Your task to perform on an android device: Empty the shopping cart on amazon.com. Search for asus zenbook on amazon.com, select the first entry, and add it to the cart. Image 0: 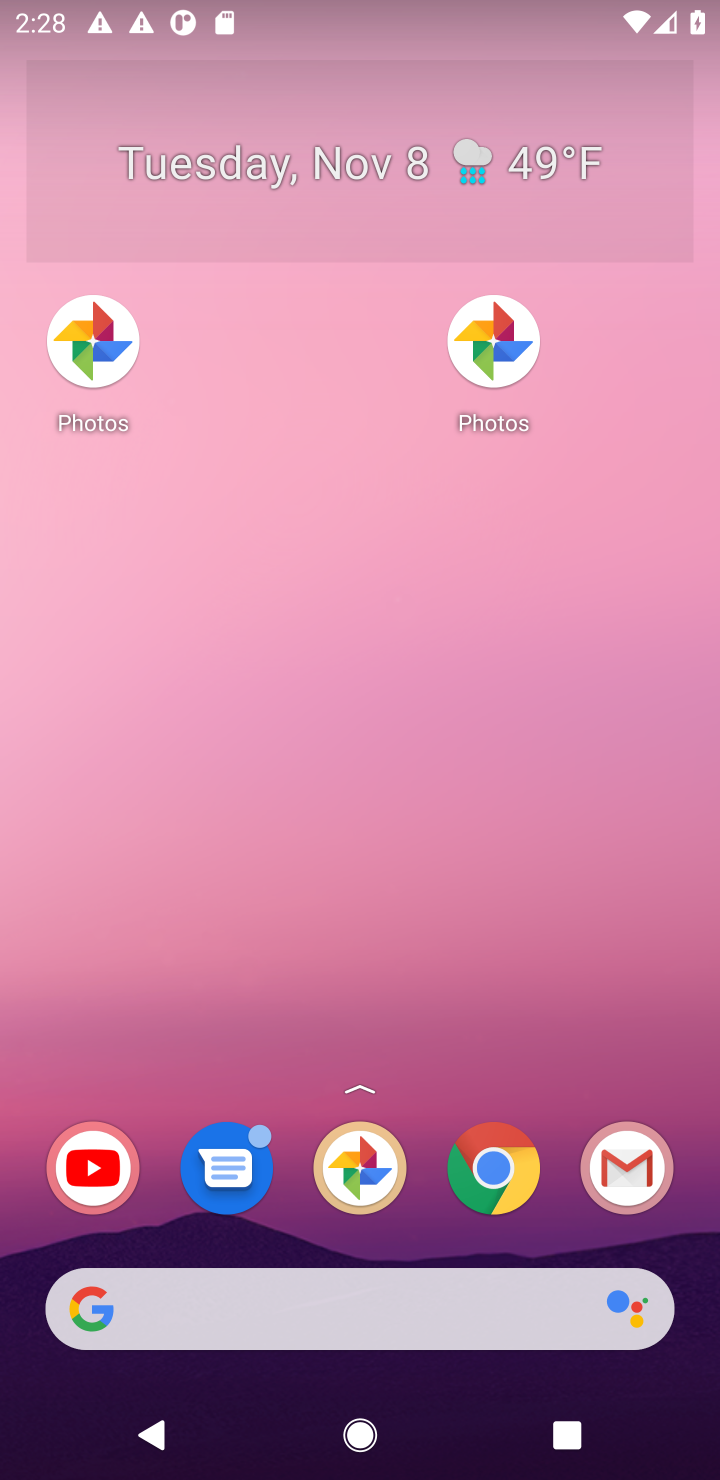
Step 0: drag from (312, 1171) to (404, 354)
Your task to perform on an android device: Empty the shopping cart on amazon.com. Search for asus zenbook on amazon.com, select the first entry, and add it to the cart. Image 1: 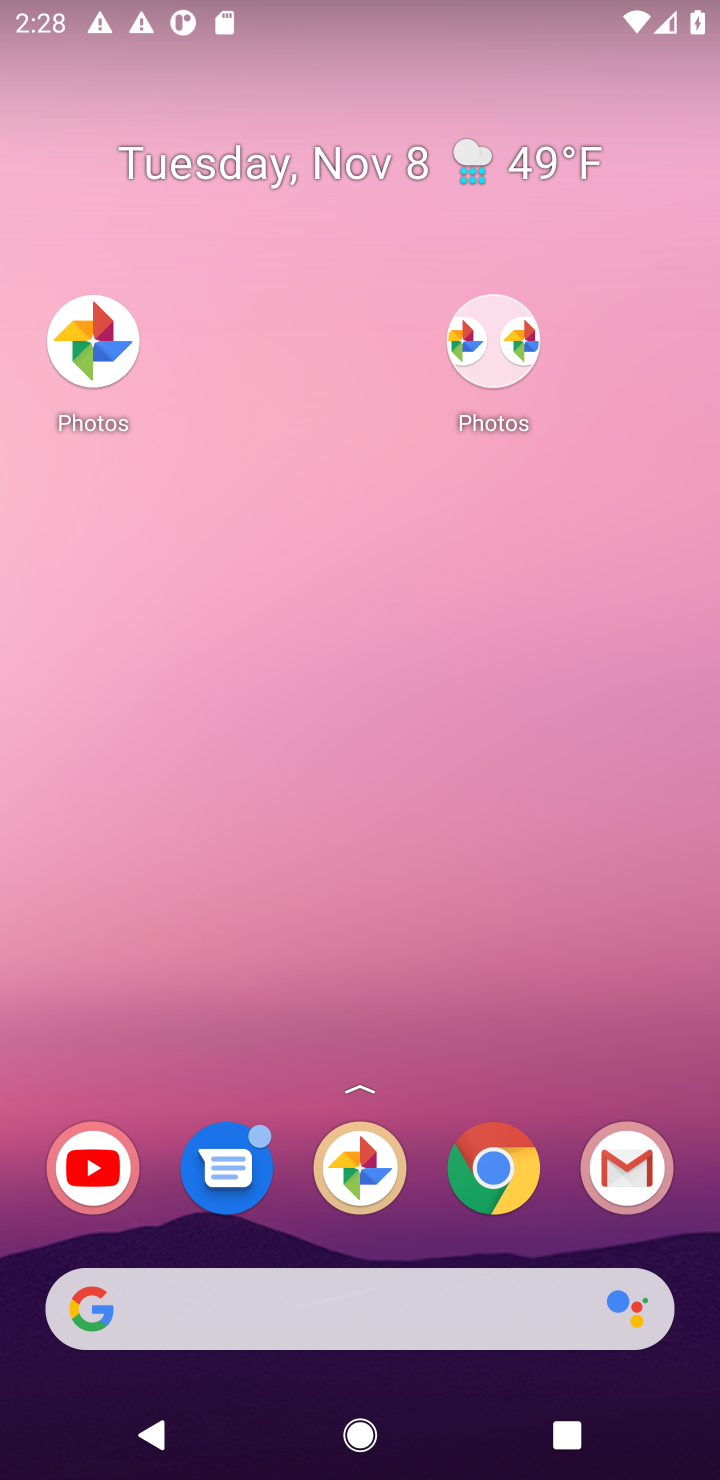
Step 1: drag from (38, 1252) to (244, 438)
Your task to perform on an android device: Empty the shopping cart on amazon.com. Search for asus zenbook on amazon.com, select the first entry, and add it to the cart. Image 2: 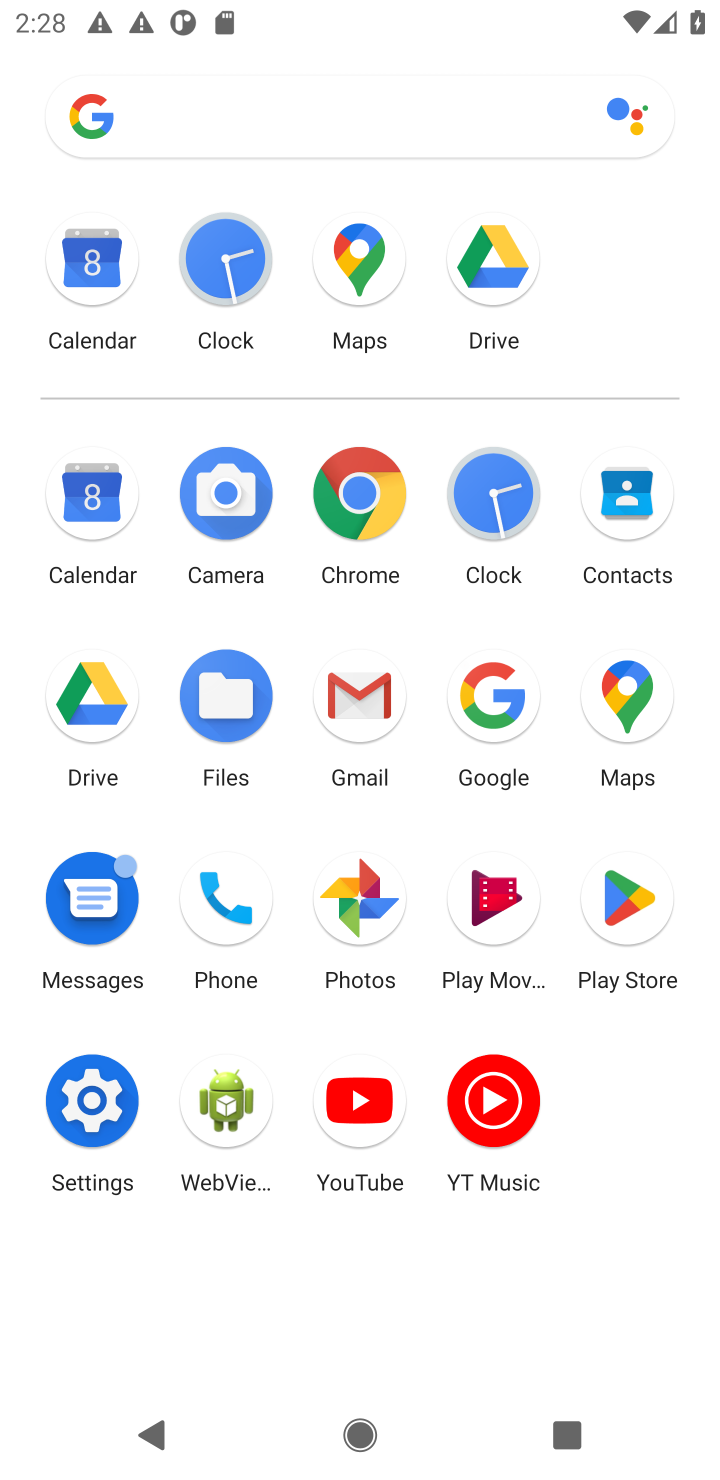
Step 2: click (381, 508)
Your task to perform on an android device: Empty the shopping cart on amazon.com. Search for asus zenbook on amazon.com, select the first entry, and add it to the cart. Image 3: 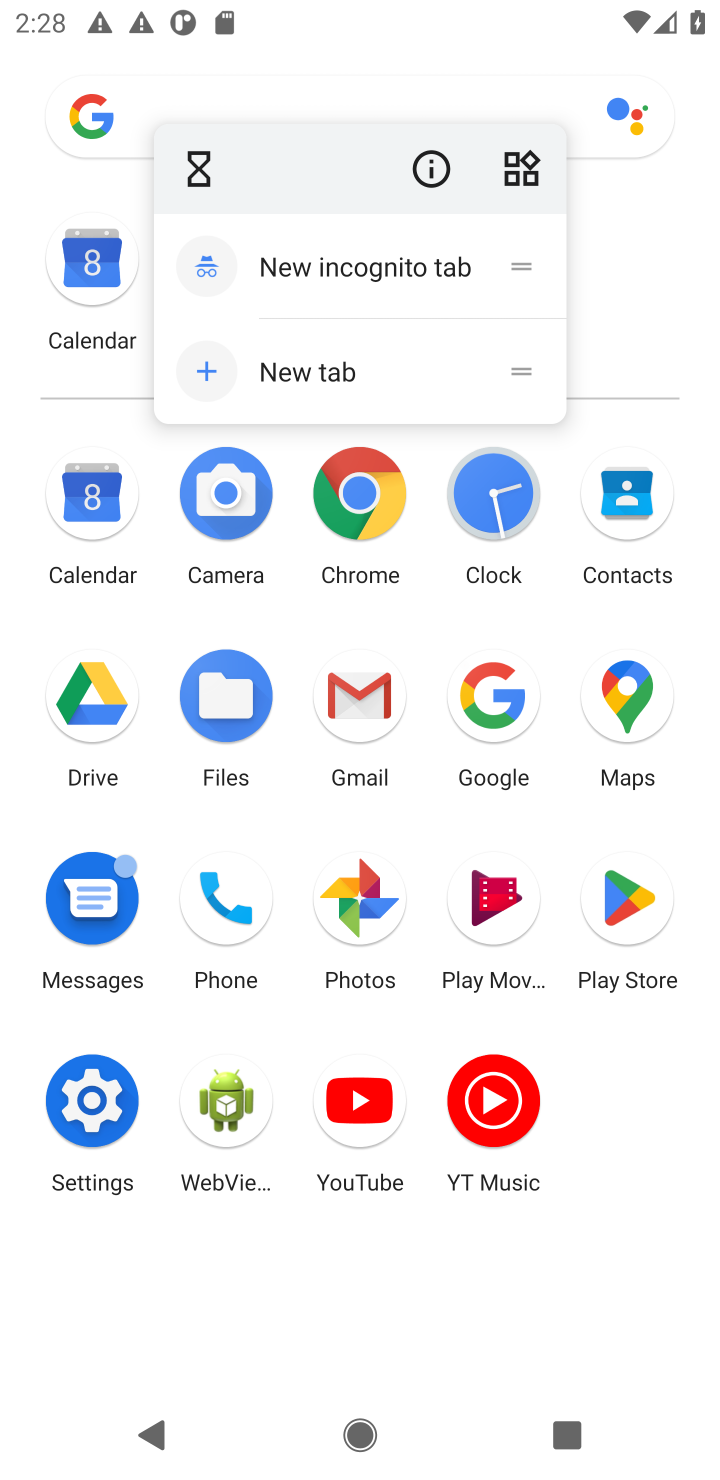
Step 3: click (381, 513)
Your task to perform on an android device: Empty the shopping cart on amazon.com. Search for asus zenbook on amazon.com, select the first entry, and add it to the cart. Image 4: 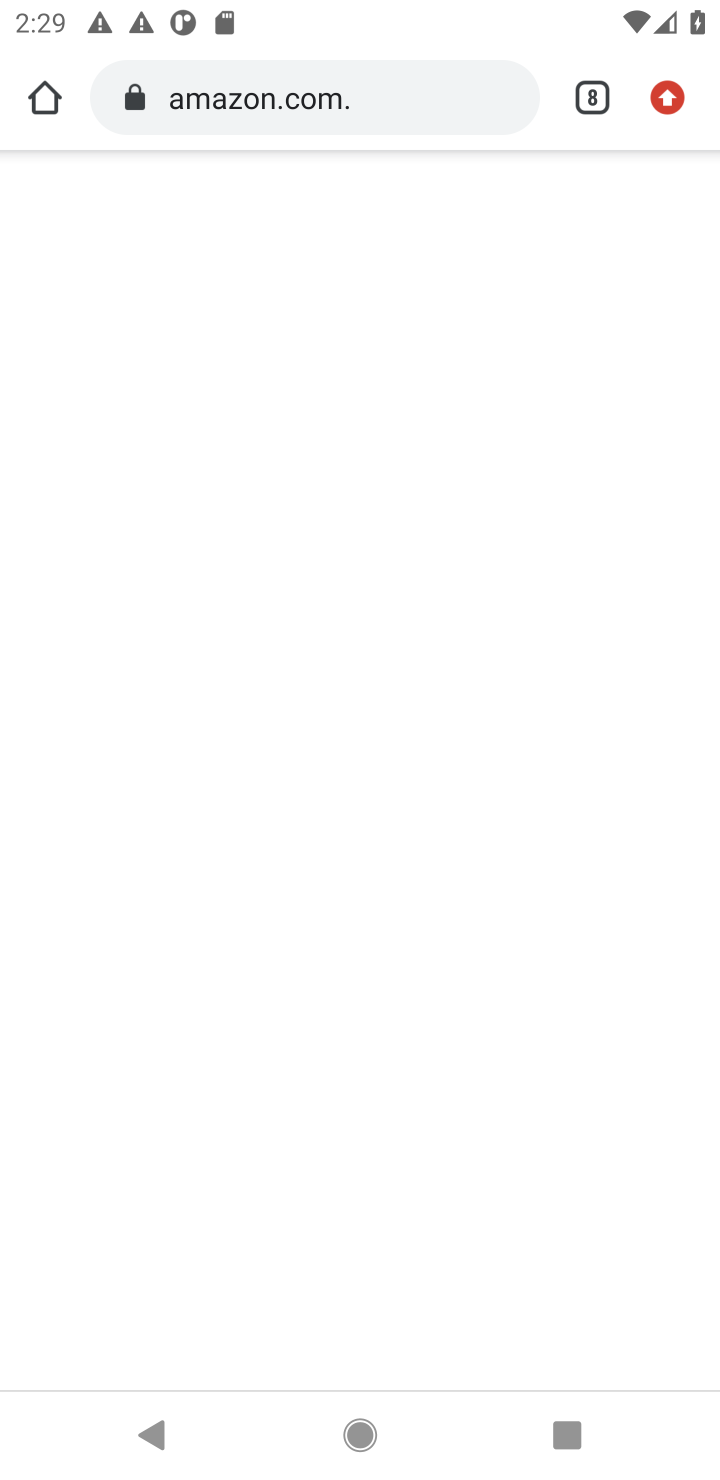
Step 4: click (412, 89)
Your task to perform on an android device: Empty the shopping cart on amazon.com. Search for asus zenbook on amazon.com, select the first entry, and add it to the cart. Image 5: 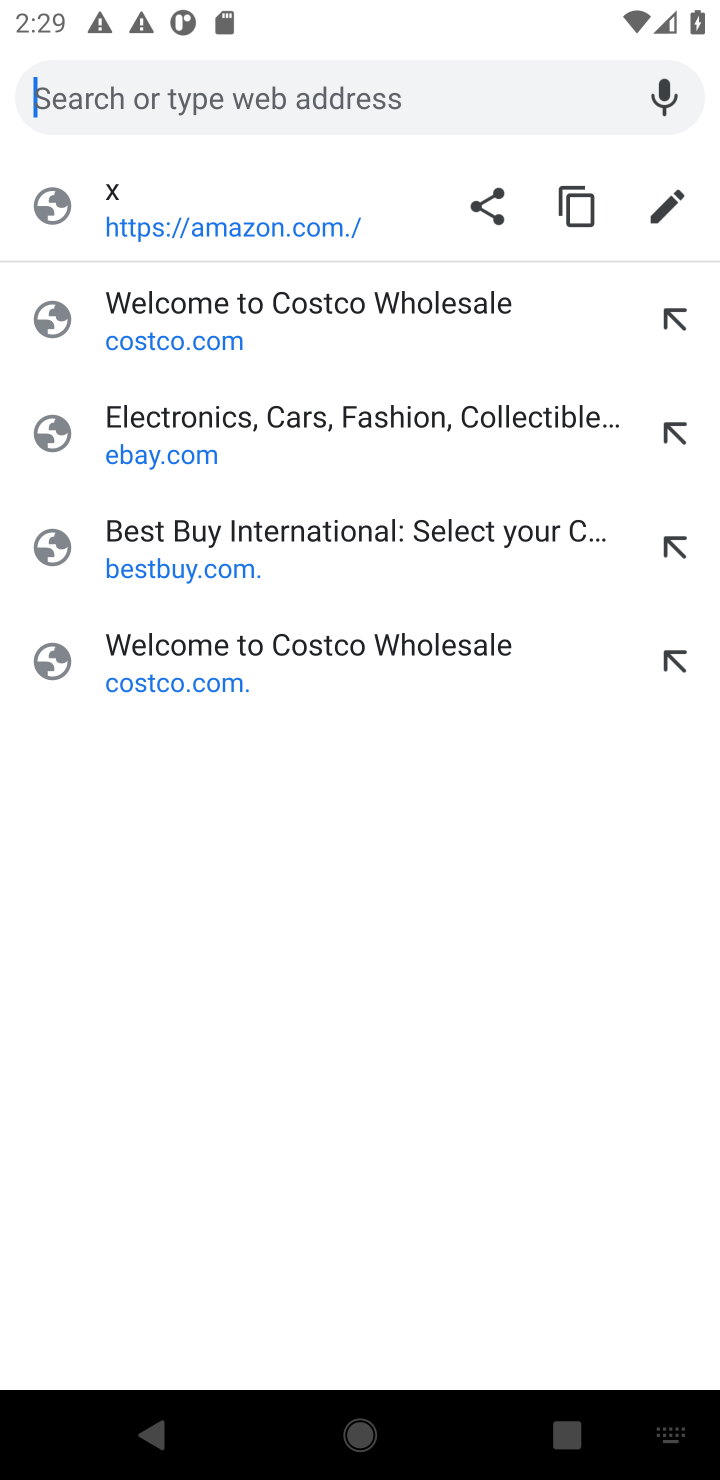
Step 5: type "amazon.com"
Your task to perform on an android device: Empty the shopping cart on amazon.com. Search for asus zenbook on amazon.com, select the first entry, and add it to the cart. Image 6: 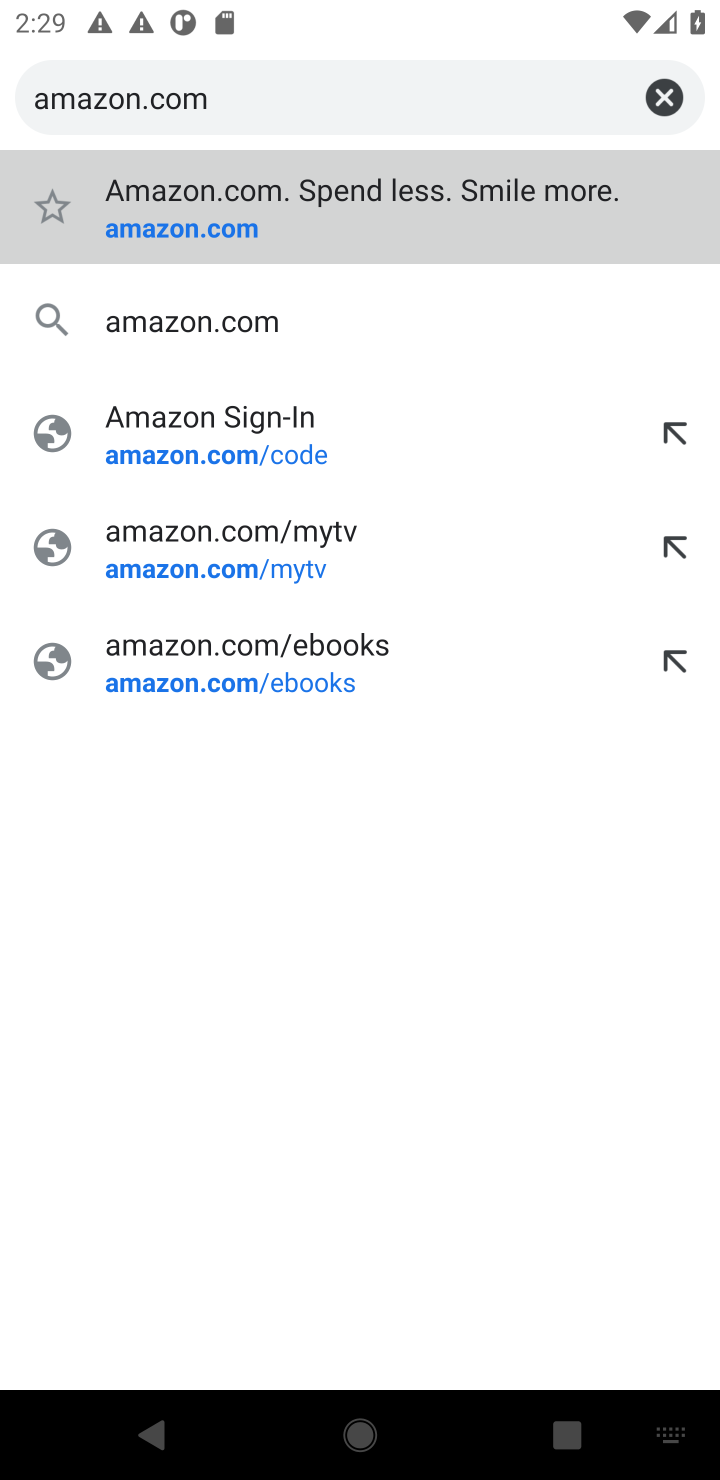
Step 6: press enter
Your task to perform on an android device: Empty the shopping cart on amazon.com. Search for asus zenbook on amazon.com, select the first entry, and add it to the cart. Image 7: 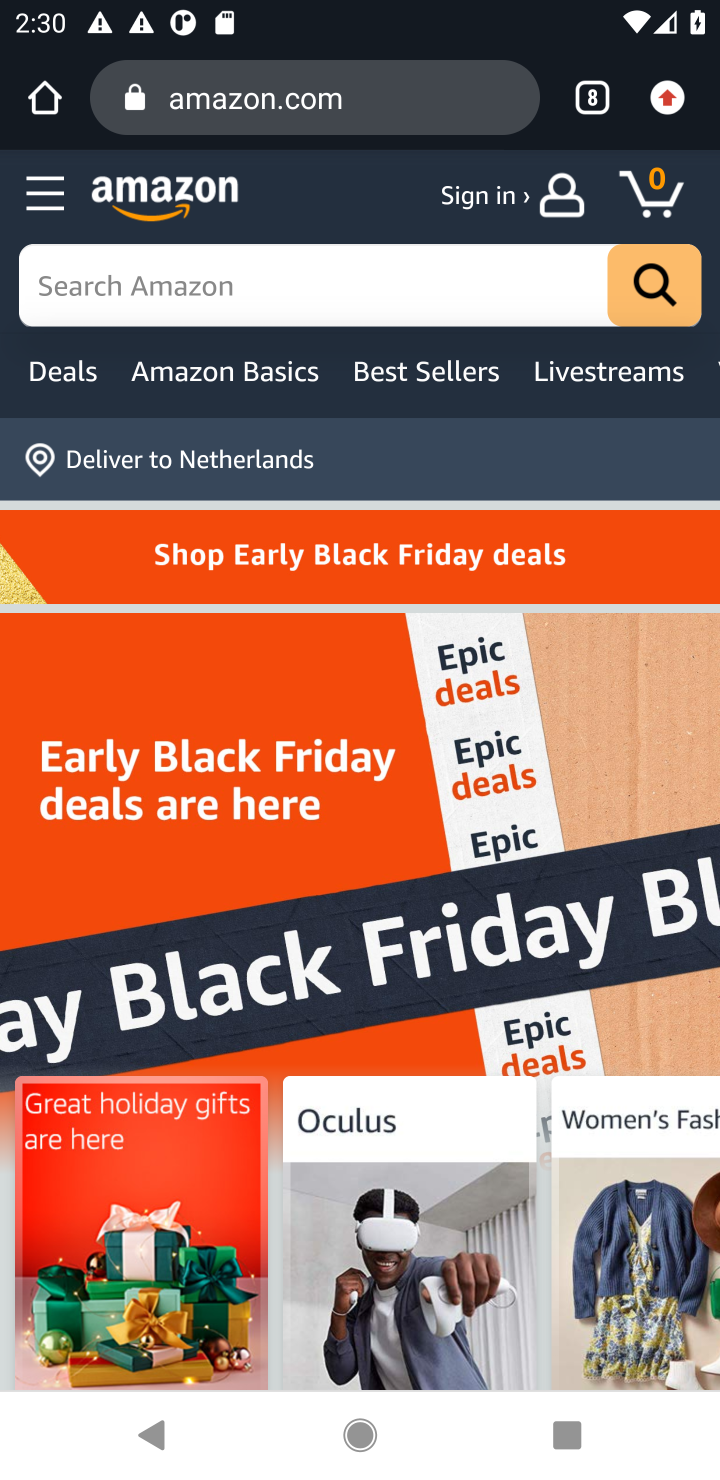
Step 7: click (289, 273)
Your task to perform on an android device: Empty the shopping cart on amazon.com. Search for asus zenbook on amazon.com, select the first entry, and add it to the cart. Image 8: 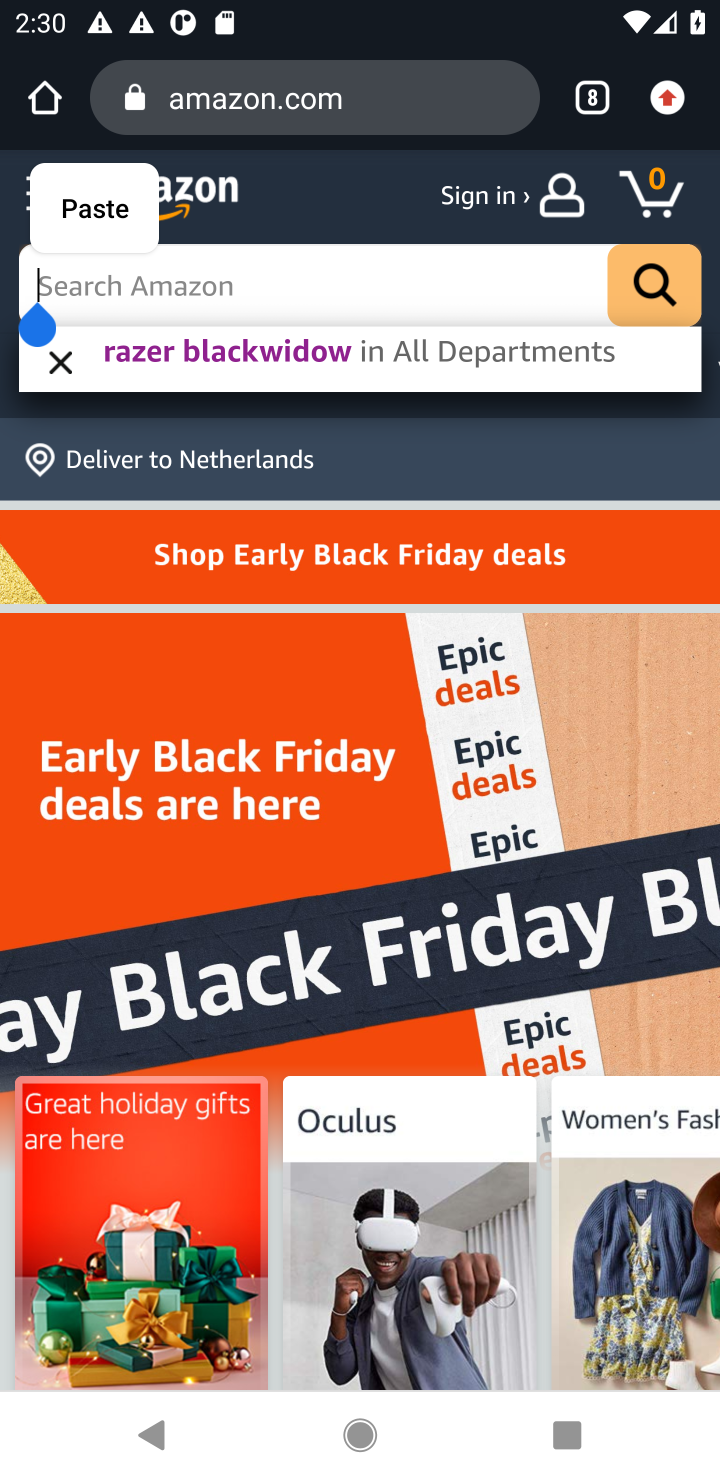
Step 8: type "asus zenbook "
Your task to perform on an android device: Empty the shopping cart on amazon.com. Search for asus zenbook on amazon.com, select the first entry, and add it to the cart. Image 9: 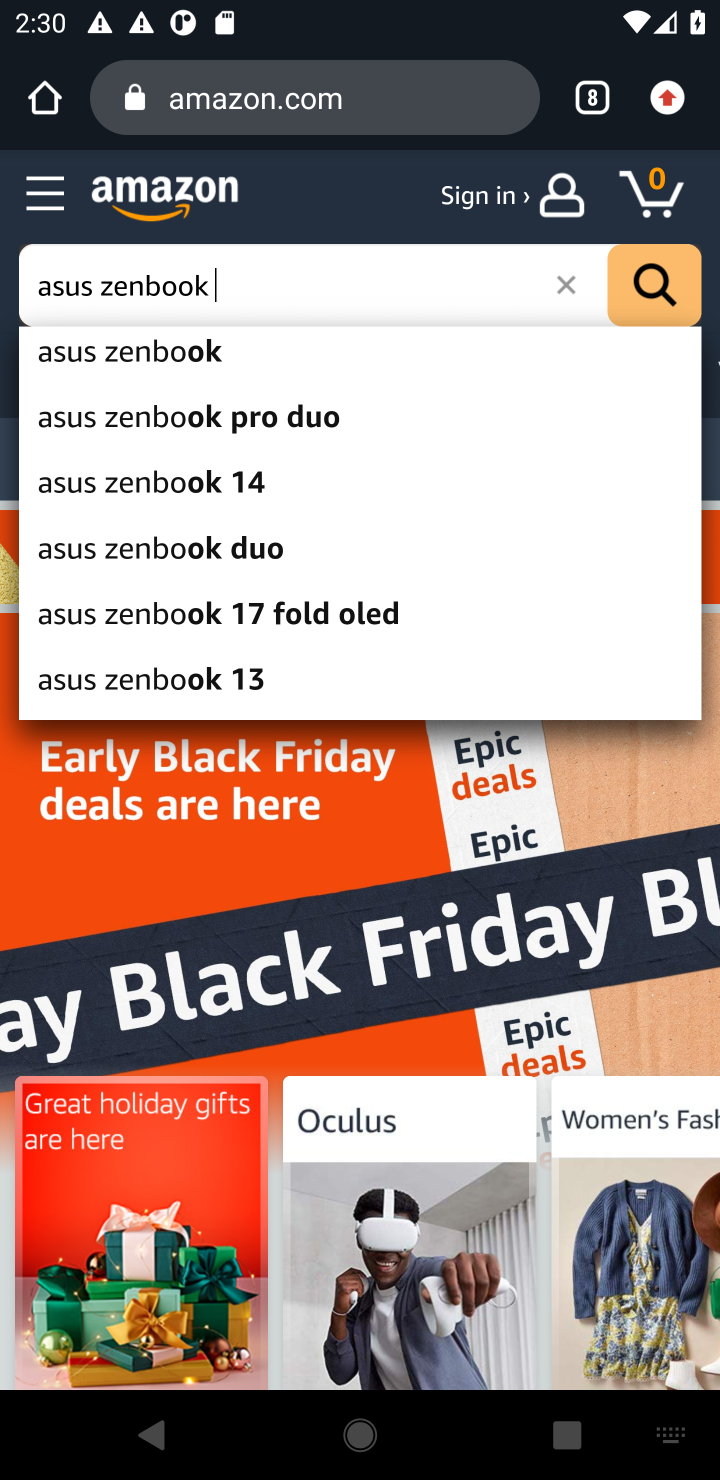
Step 9: press enter
Your task to perform on an android device: Empty the shopping cart on amazon.com. Search for asus zenbook on amazon.com, select the first entry, and add it to the cart. Image 10: 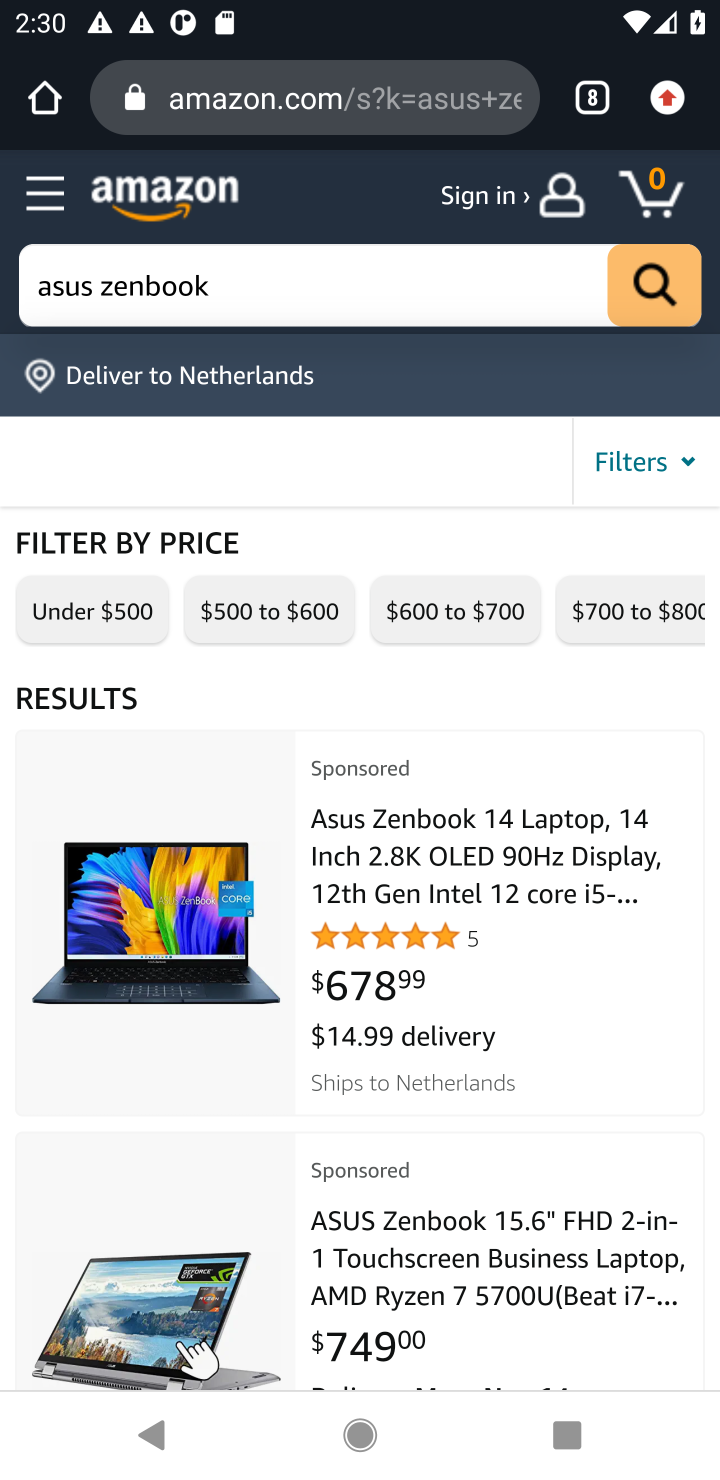
Step 10: click (433, 823)
Your task to perform on an android device: Empty the shopping cart on amazon.com. Search for asus zenbook on amazon.com, select the first entry, and add it to the cart. Image 11: 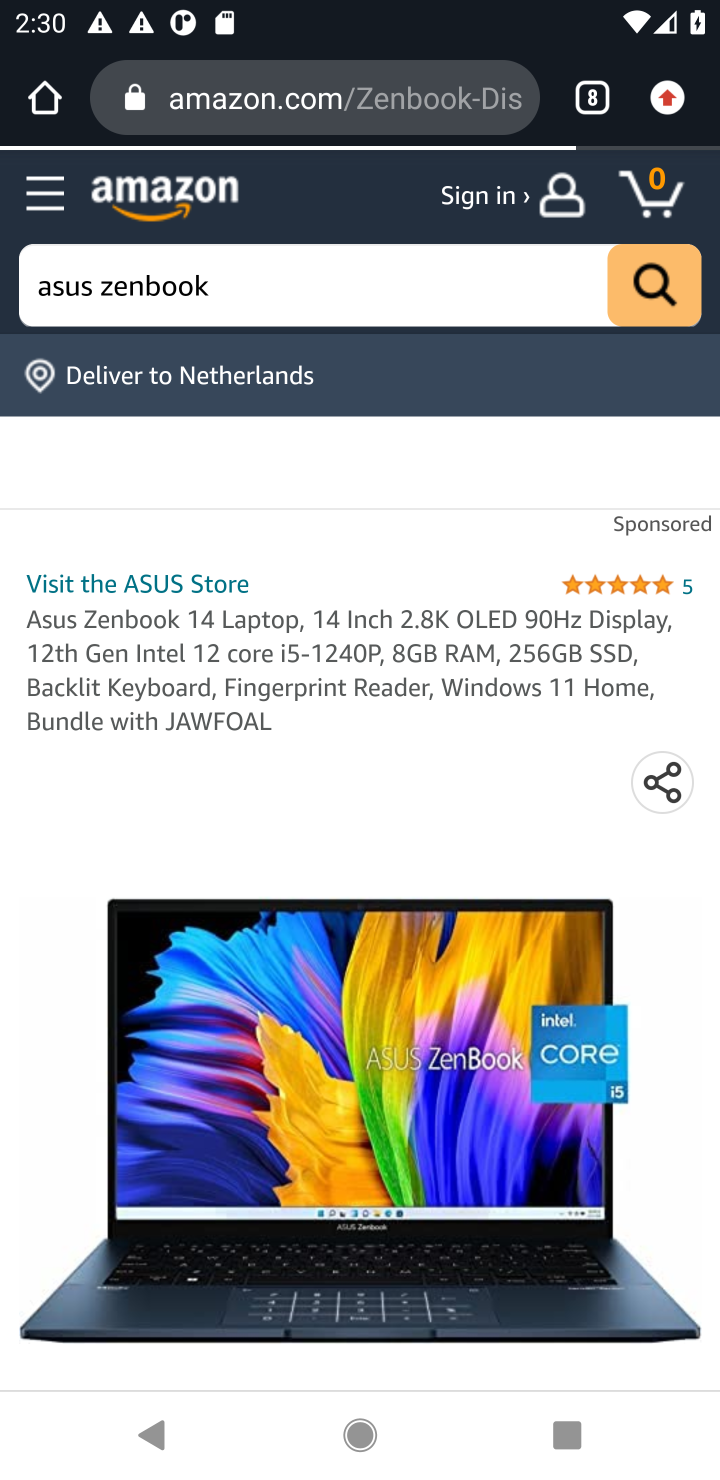
Step 11: drag from (255, 1191) to (378, 907)
Your task to perform on an android device: Empty the shopping cart on amazon.com. Search for asus zenbook on amazon.com, select the first entry, and add it to the cart. Image 12: 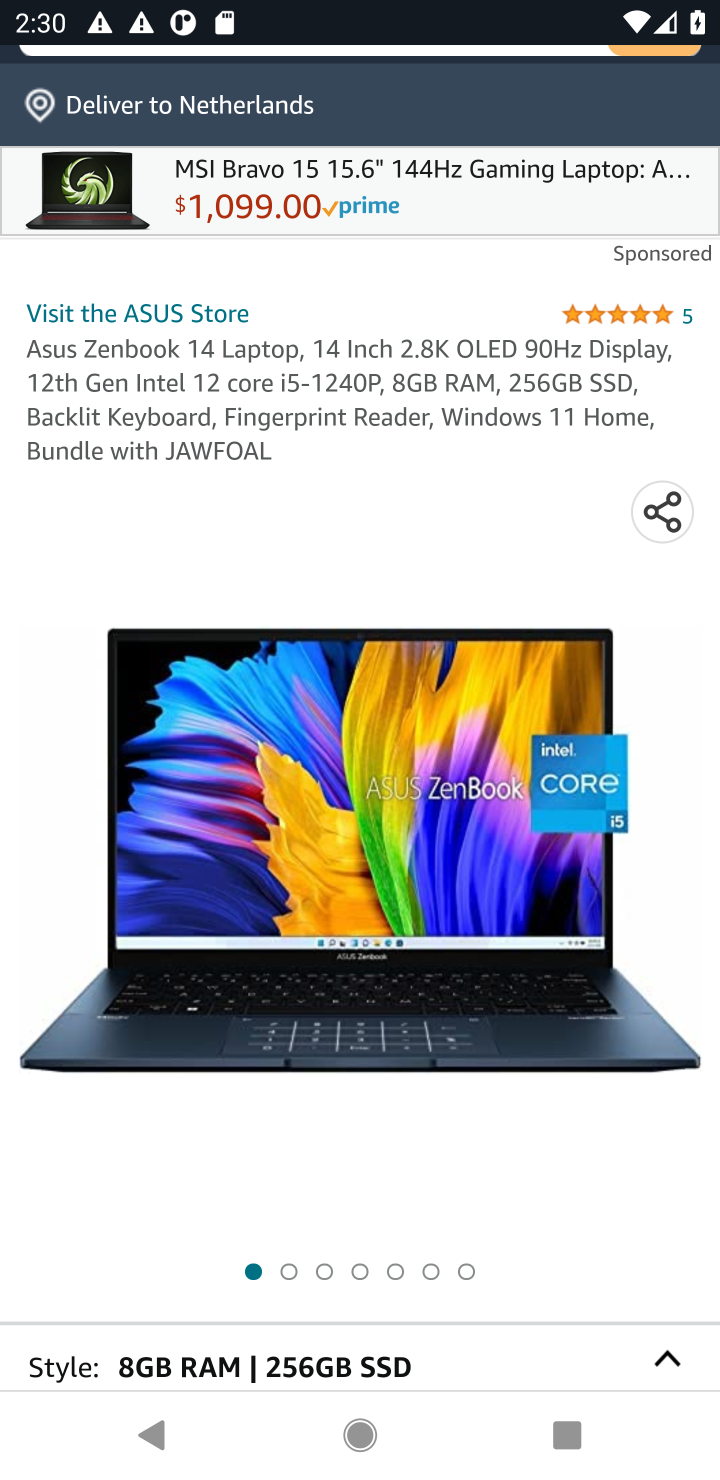
Step 12: drag from (280, 1178) to (446, 814)
Your task to perform on an android device: Empty the shopping cart on amazon.com. Search for asus zenbook on amazon.com, select the first entry, and add it to the cart. Image 13: 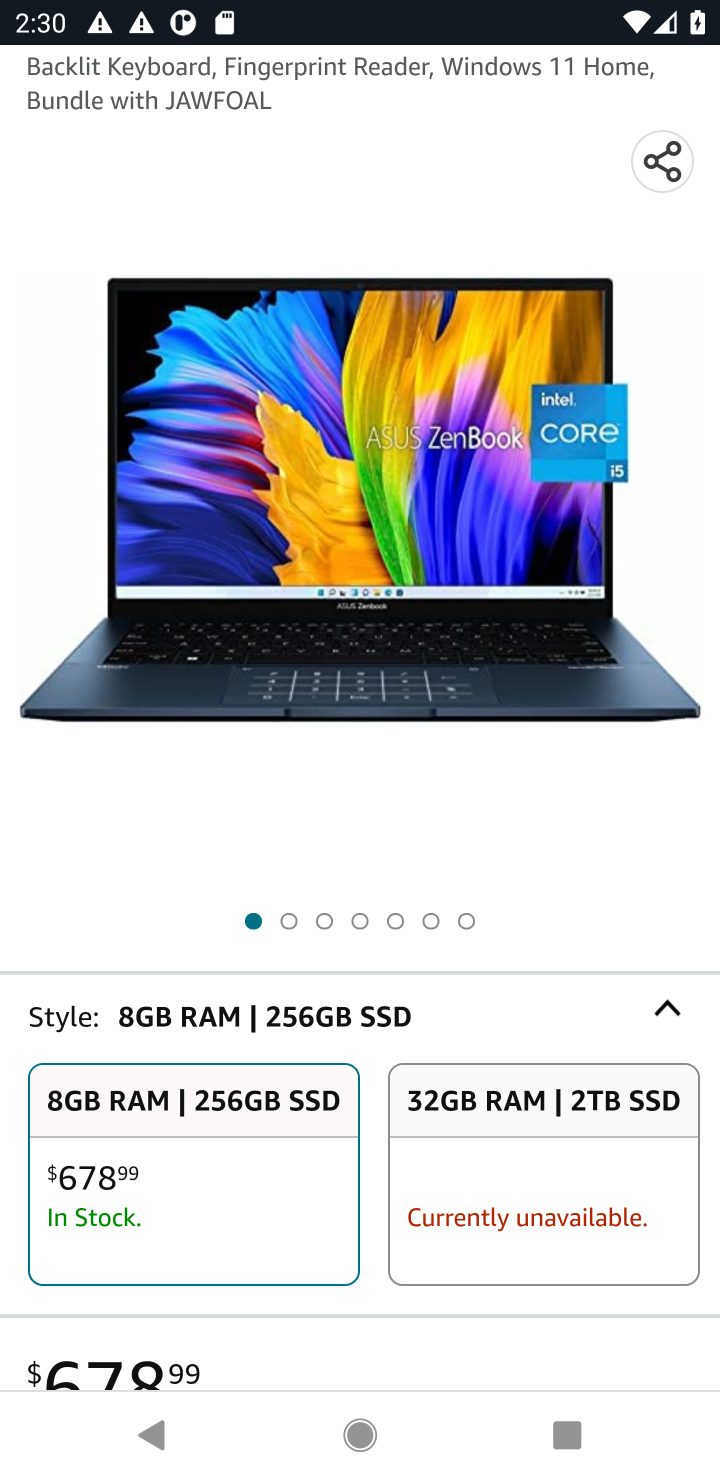
Step 13: drag from (303, 1143) to (444, 863)
Your task to perform on an android device: Empty the shopping cart on amazon.com. Search for asus zenbook on amazon.com, select the first entry, and add it to the cart. Image 14: 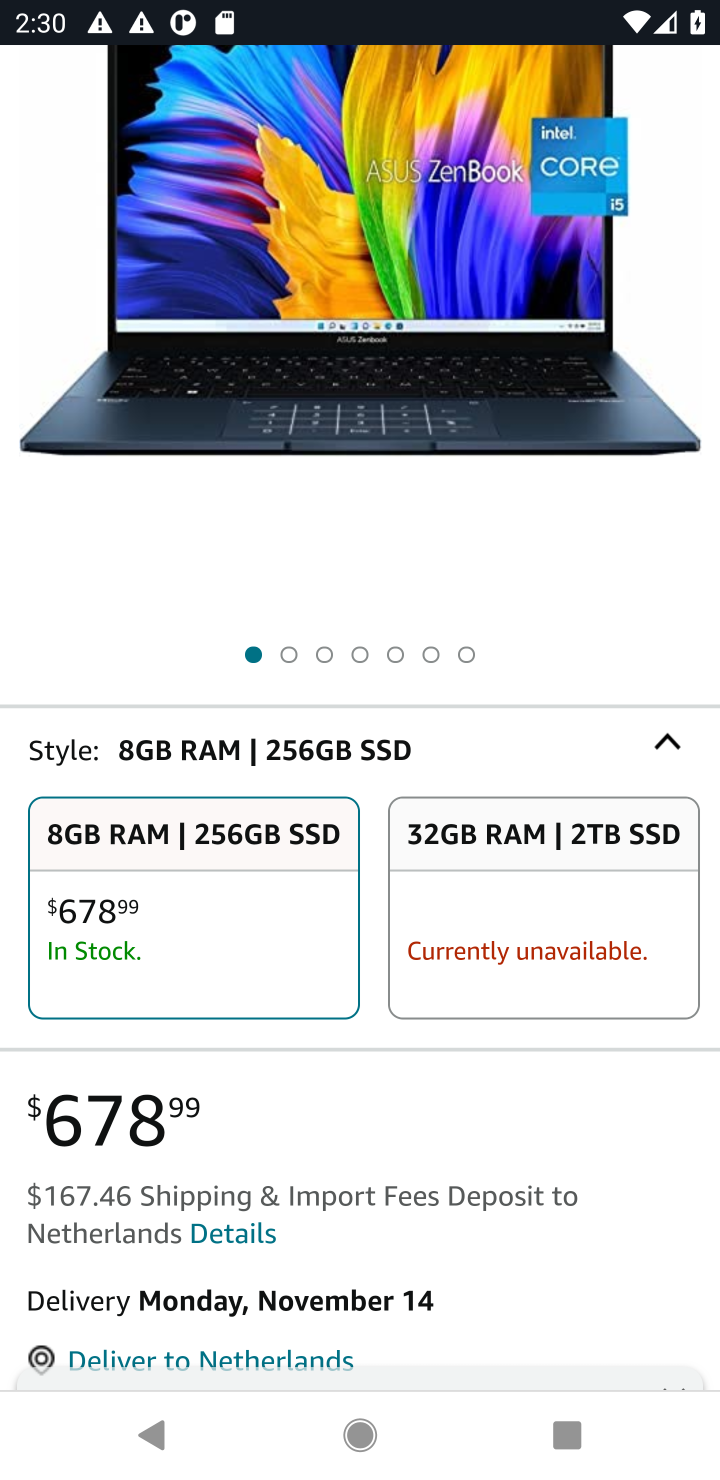
Step 14: drag from (284, 1321) to (397, 862)
Your task to perform on an android device: Empty the shopping cart on amazon.com. Search for asus zenbook on amazon.com, select the first entry, and add it to the cart. Image 15: 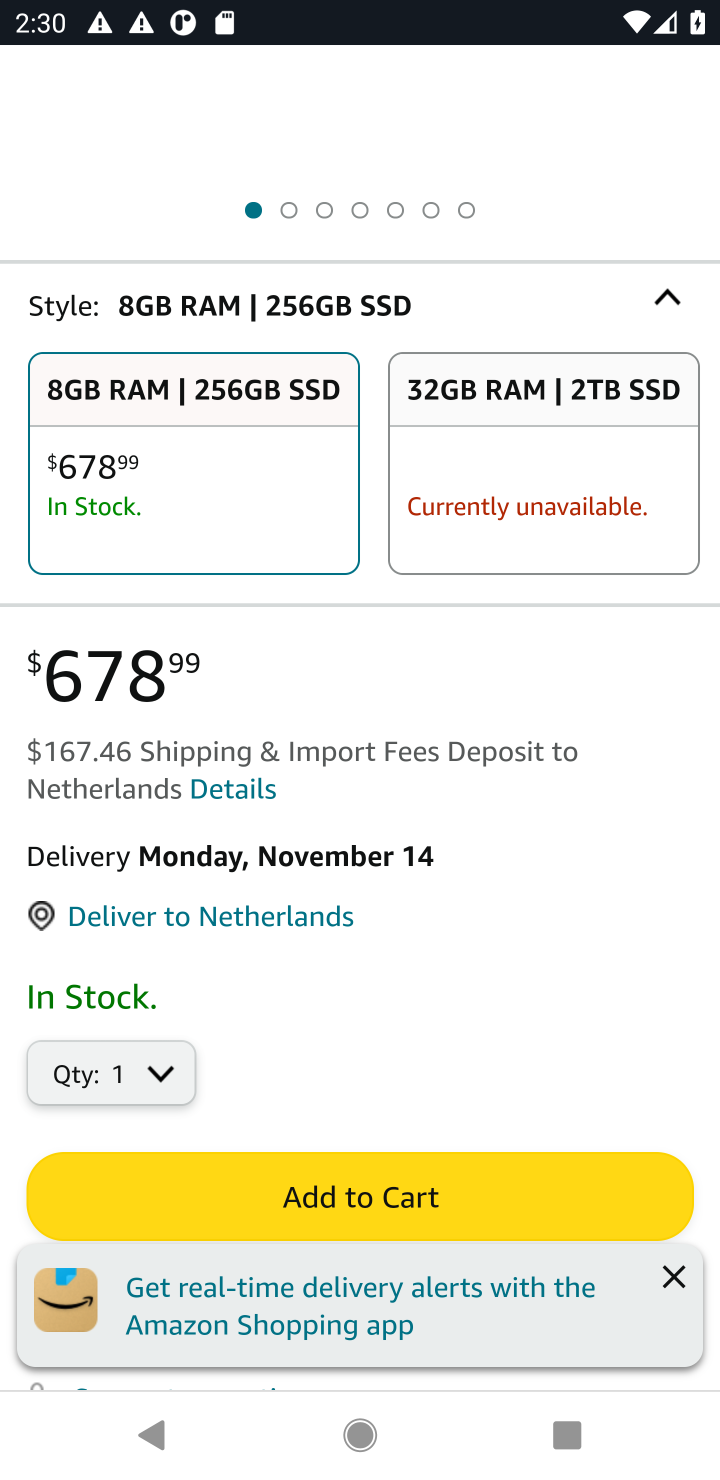
Step 15: click (366, 1195)
Your task to perform on an android device: Empty the shopping cart on amazon.com. Search for asus zenbook on amazon.com, select the first entry, and add it to the cart. Image 16: 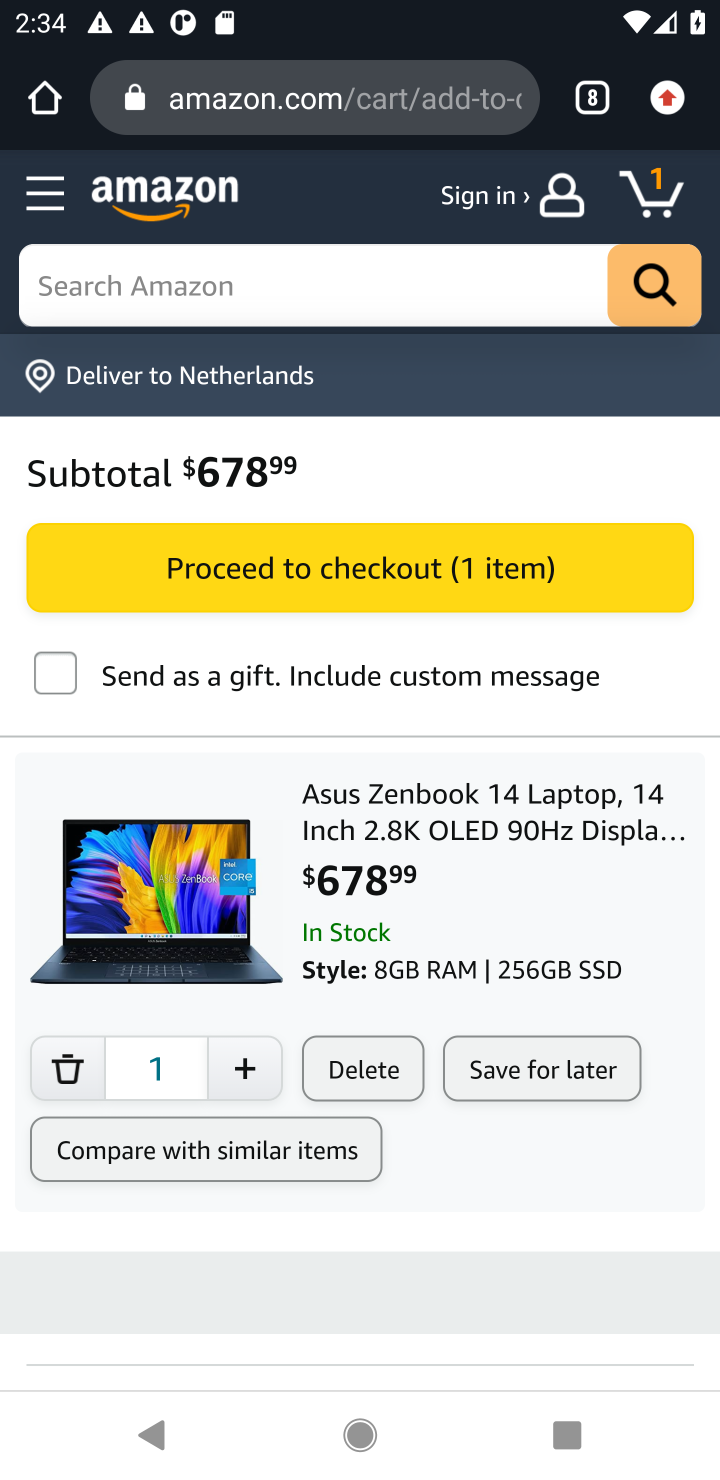
Step 16: task complete